Your task to perform on an android device: move a message to another label in the gmail app Image 0: 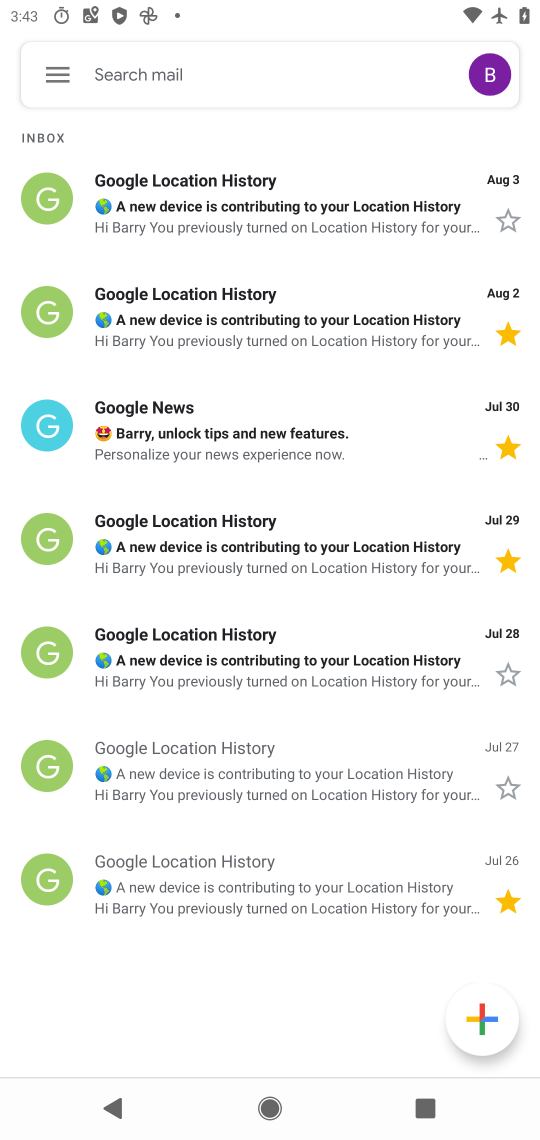
Step 0: click (377, 565)
Your task to perform on an android device: move a message to another label in the gmail app Image 1: 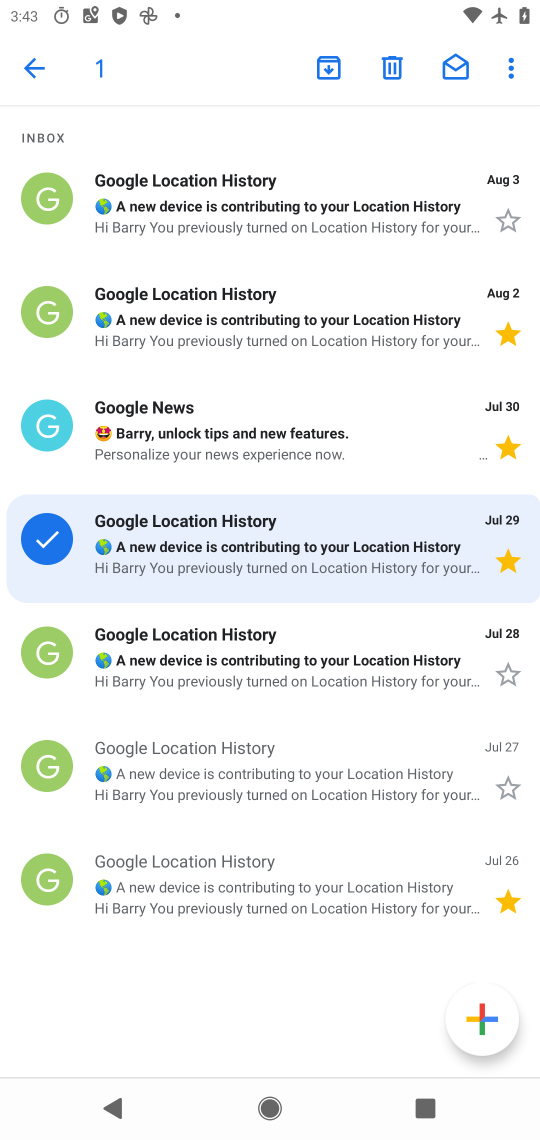
Step 1: click (506, 60)
Your task to perform on an android device: move a message to another label in the gmail app Image 2: 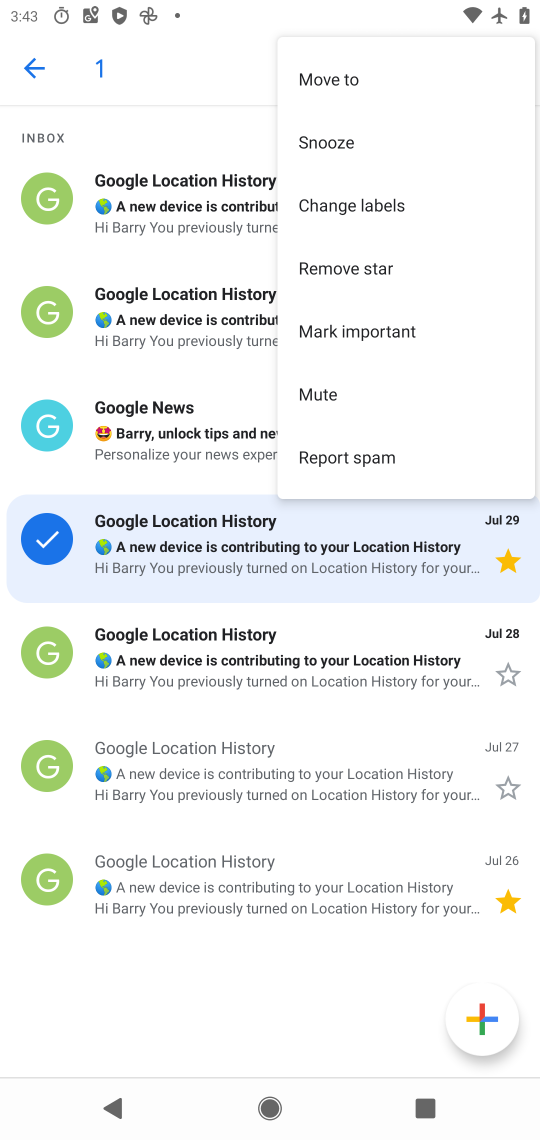
Step 2: click (415, 204)
Your task to perform on an android device: move a message to another label in the gmail app Image 3: 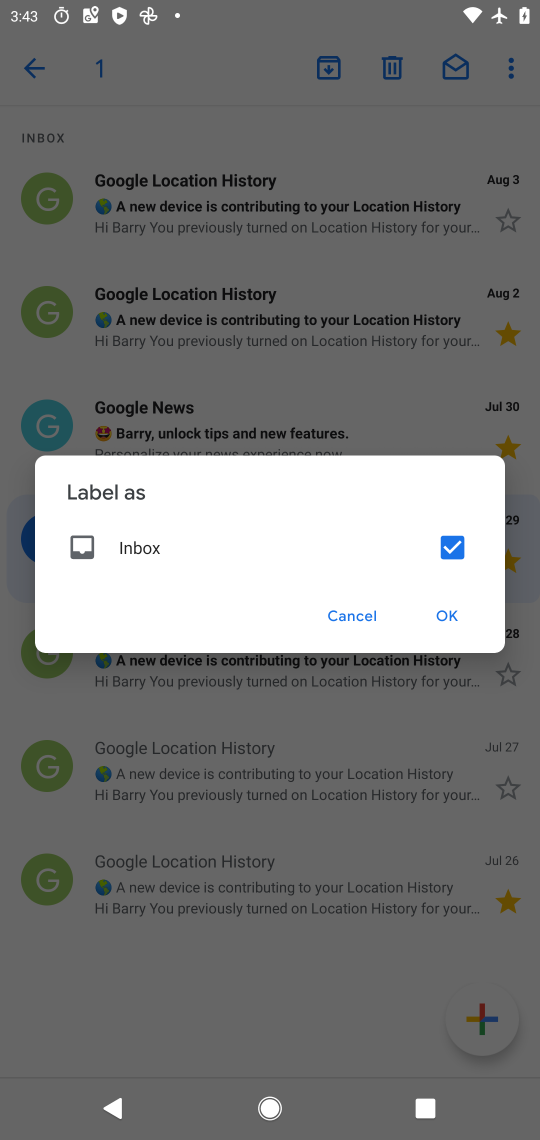
Step 3: click (456, 607)
Your task to perform on an android device: move a message to another label in the gmail app Image 4: 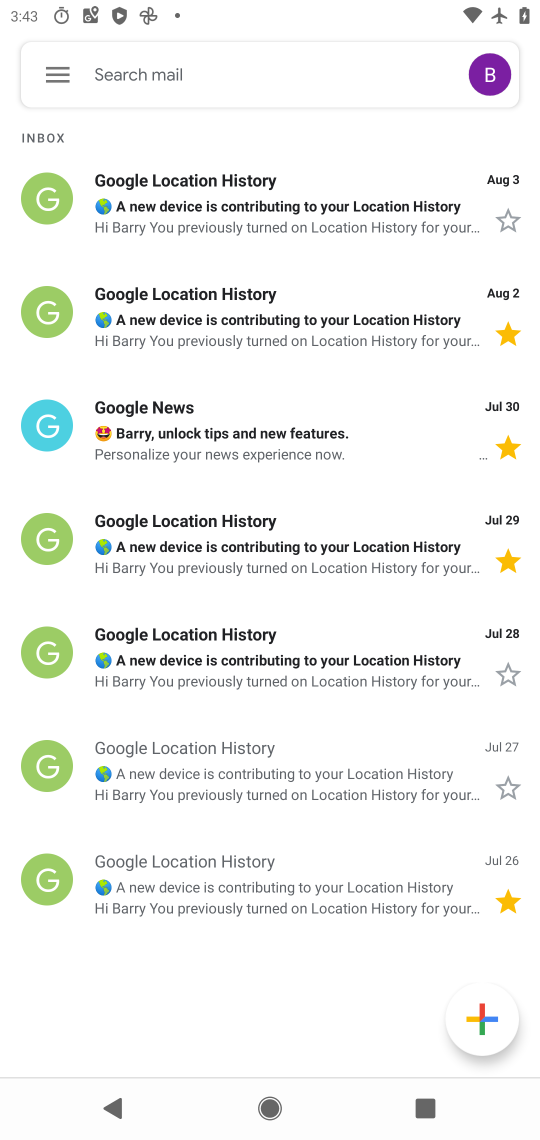
Step 4: task complete